Your task to perform on an android device: turn off wifi Image 0: 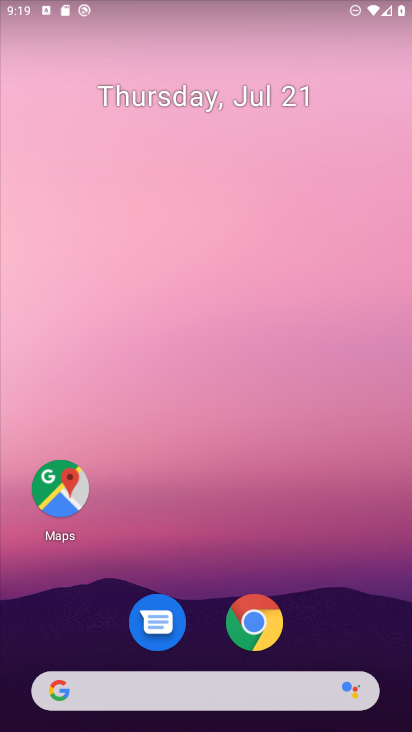
Step 0: drag from (202, 726) to (188, 73)
Your task to perform on an android device: turn off wifi Image 1: 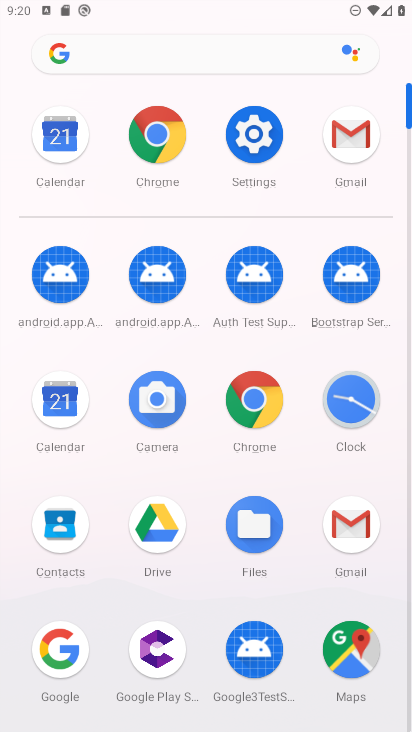
Step 1: click (252, 141)
Your task to perform on an android device: turn off wifi Image 2: 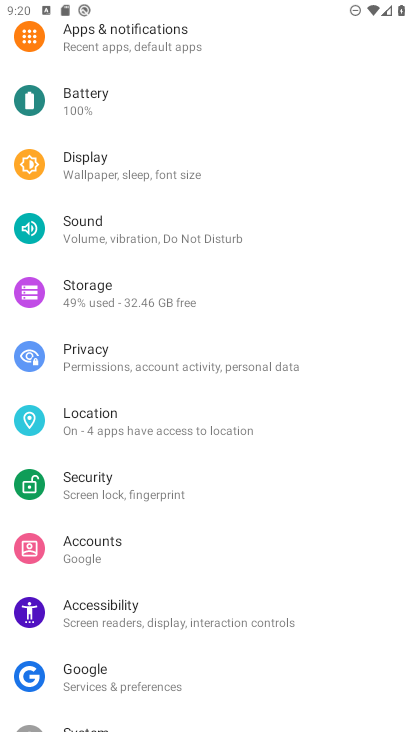
Step 2: drag from (308, 295) to (282, 659)
Your task to perform on an android device: turn off wifi Image 3: 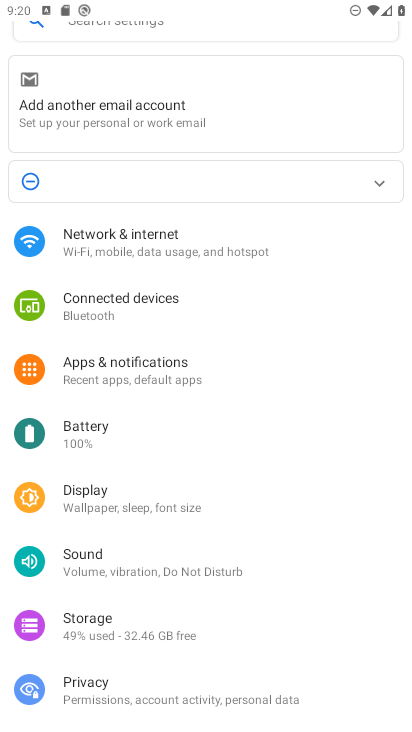
Step 3: click (270, 252)
Your task to perform on an android device: turn off wifi Image 4: 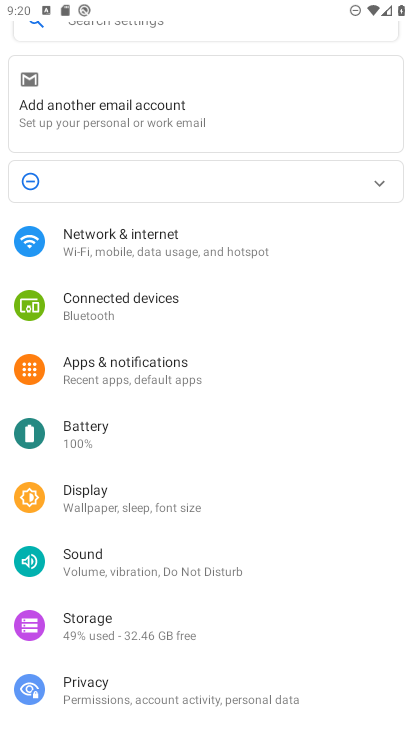
Step 4: click (270, 252)
Your task to perform on an android device: turn off wifi Image 5: 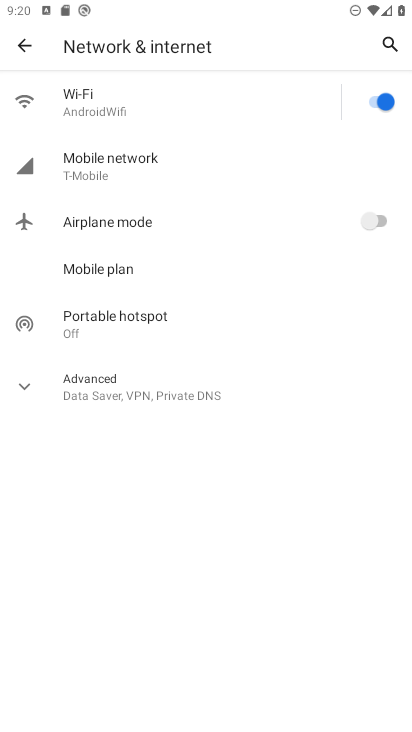
Step 5: click (382, 97)
Your task to perform on an android device: turn off wifi Image 6: 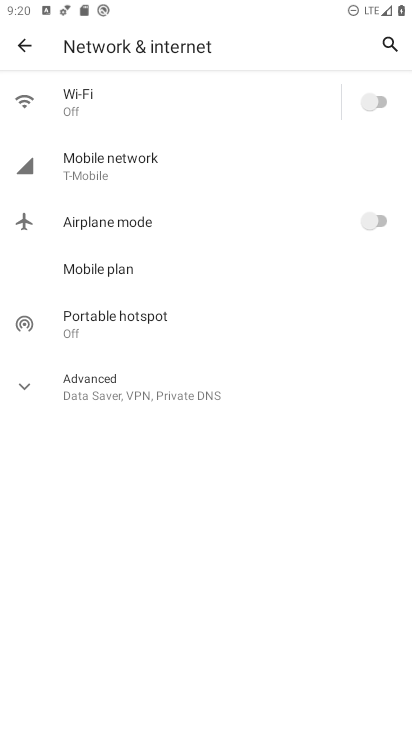
Step 6: task complete